Your task to perform on an android device: check battery use Image 0: 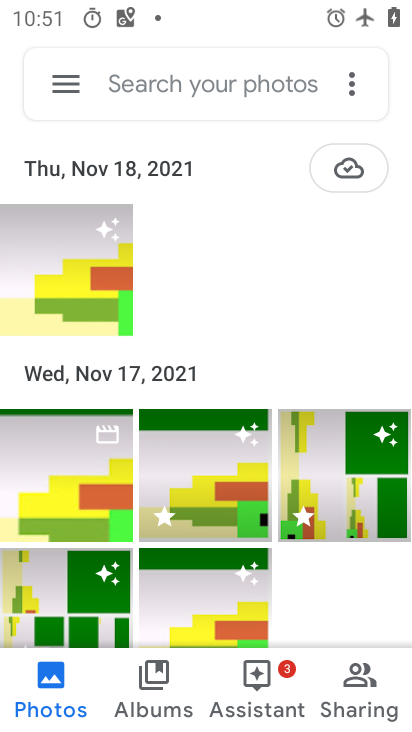
Step 0: press home button
Your task to perform on an android device: check battery use Image 1: 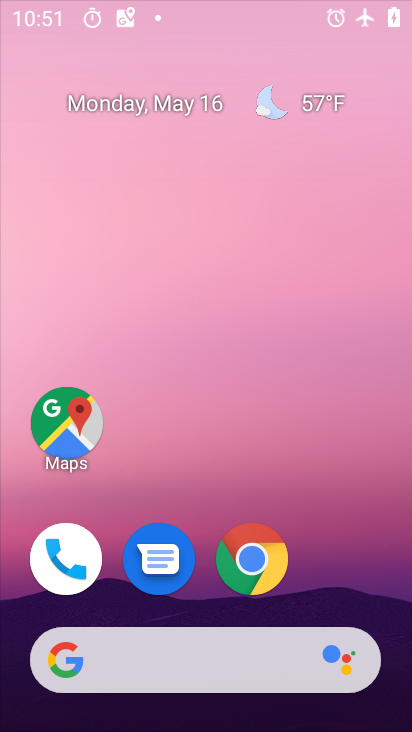
Step 1: drag from (302, 567) to (387, 159)
Your task to perform on an android device: check battery use Image 2: 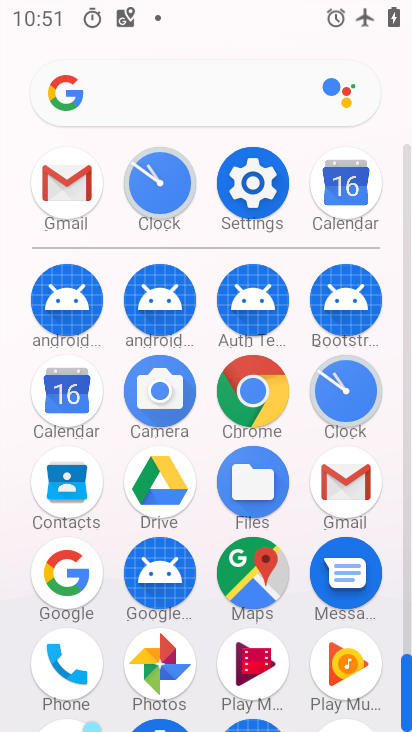
Step 2: click (268, 179)
Your task to perform on an android device: check battery use Image 3: 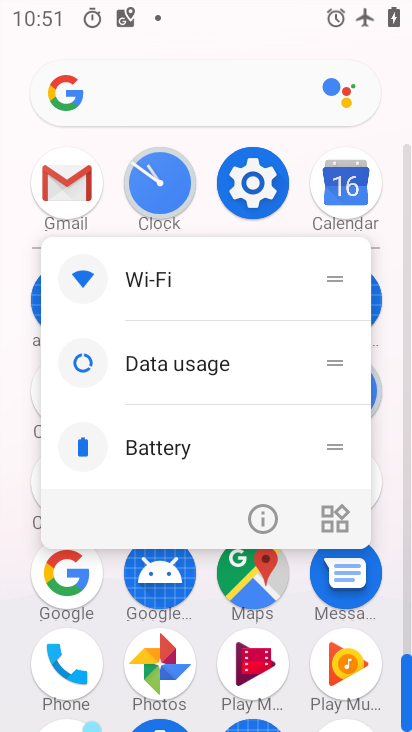
Step 3: click (273, 190)
Your task to perform on an android device: check battery use Image 4: 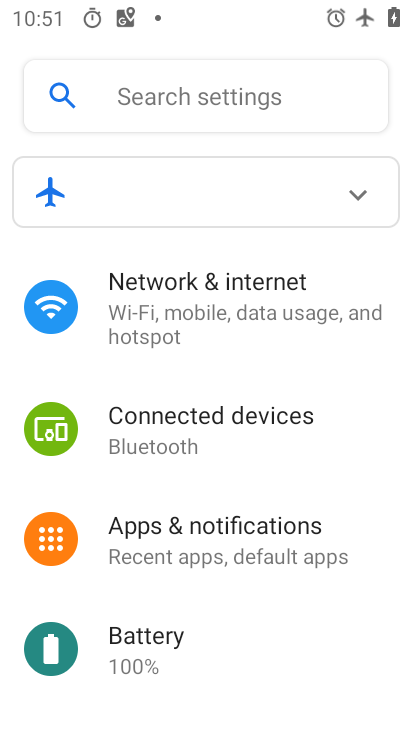
Step 4: drag from (235, 443) to (338, 86)
Your task to perform on an android device: check battery use Image 5: 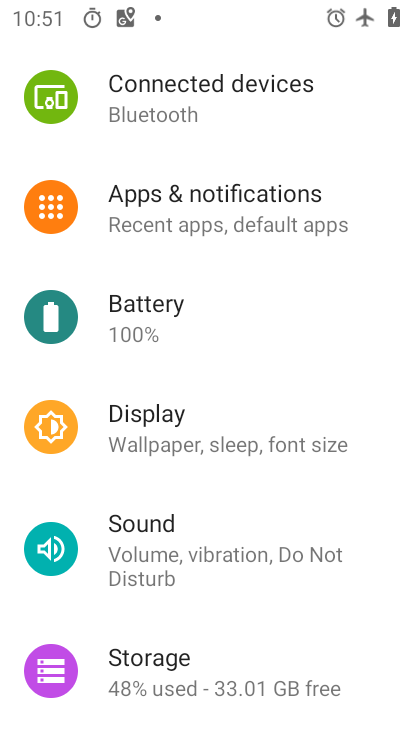
Step 5: click (144, 326)
Your task to perform on an android device: check battery use Image 6: 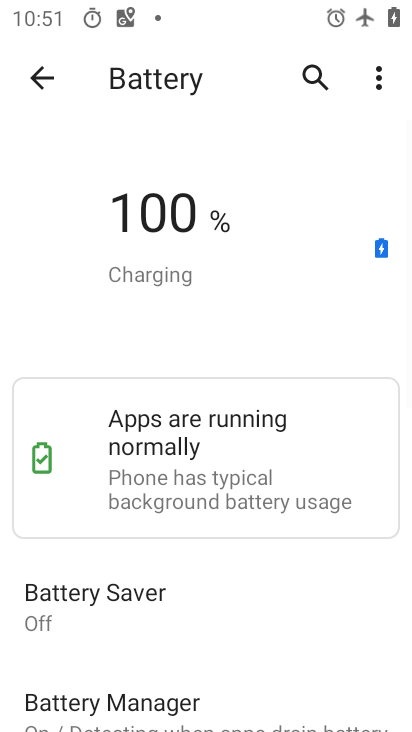
Step 6: click (371, 77)
Your task to perform on an android device: check battery use Image 7: 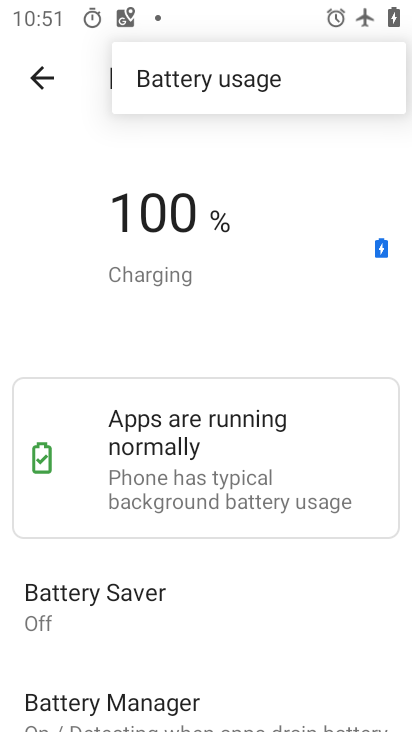
Step 7: click (275, 72)
Your task to perform on an android device: check battery use Image 8: 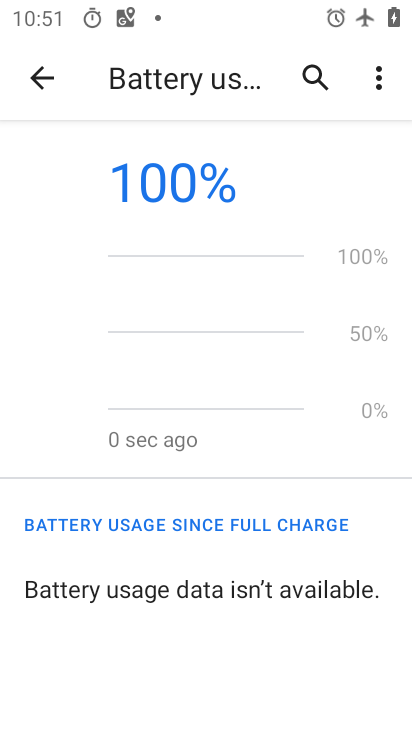
Step 8: task complete